Your task to perform on an android device: toggle translation in the chrome app Image 0: 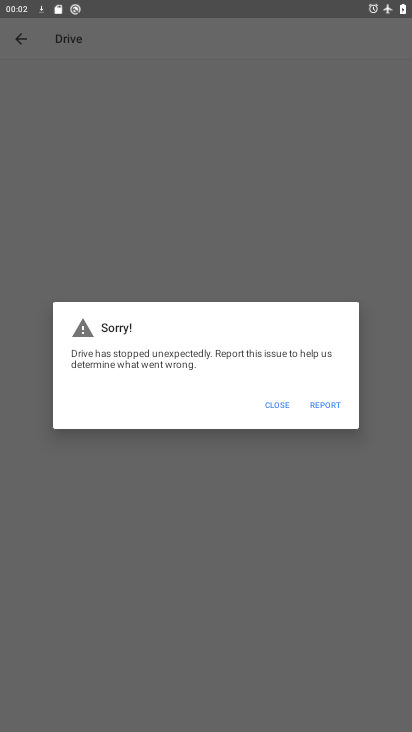
Step 0: press home button
Your task to perform on an android device: toggle translation in the chrome app Image 1: 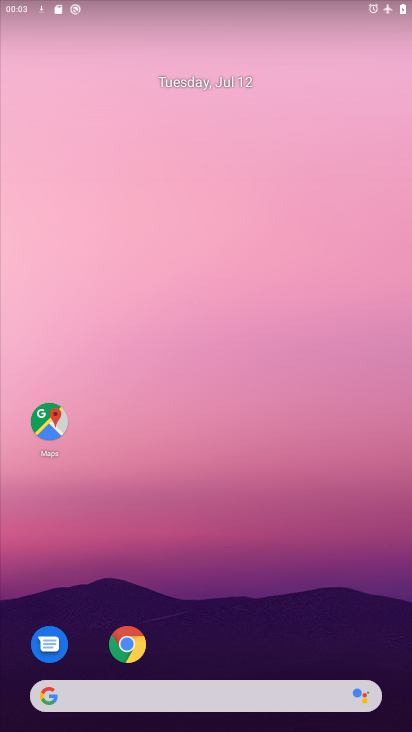
Step 1: drag from (263, 658) to (286, 272)
Your task to perform on an android device: toggle translation in the chrome app Image 2: 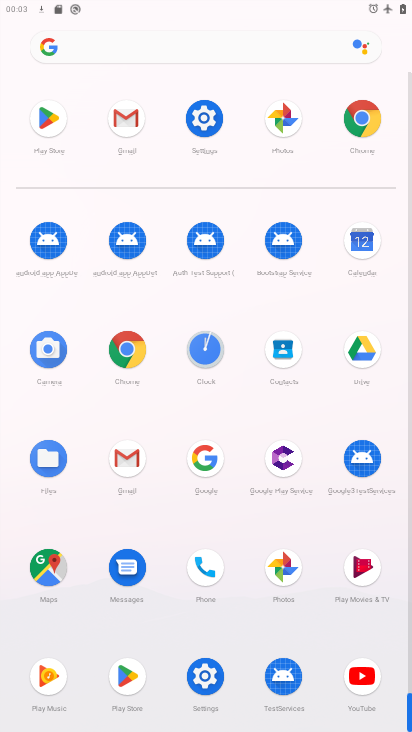
Step 2: click (129, 347)
Your task to perform on an android device: toggle translation in the chrome app Image 3: 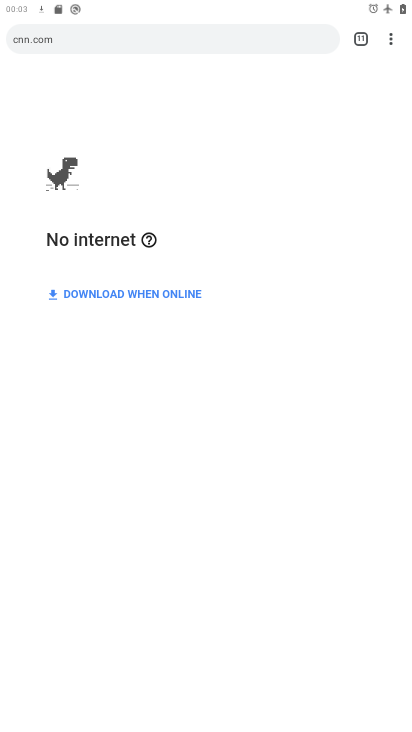
Step 3: click (386, 38)
Your task to perform on an android device: toggle translation in the chrome app Image 4: 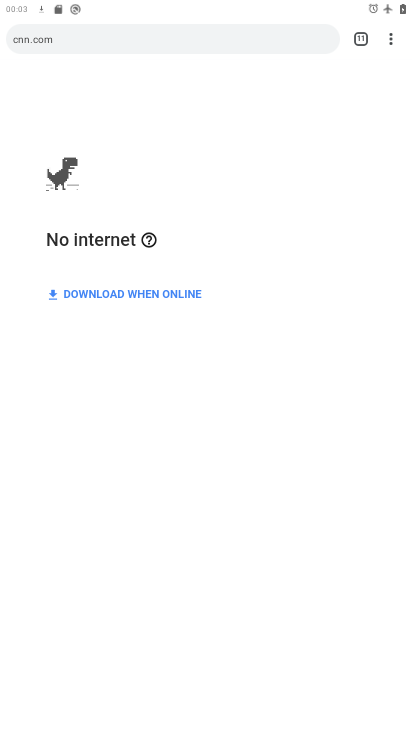
Step 4: click (402, 29)
Your task to perform on an android device: toggle translation in the chrome app Image 5: 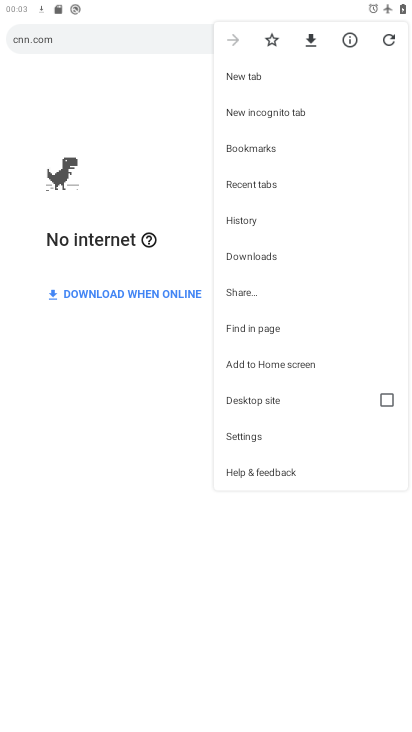
Step 5: click (274, 421)
Your task to perform on an android device: toggle translation in the chrome app Image 6: 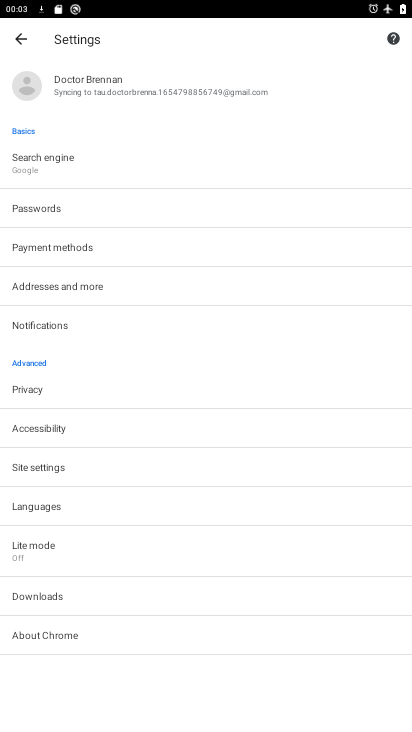
Step 6: click (67, 509)
Your task to perform on an android device: toggle translation in the chrome app Image 7: 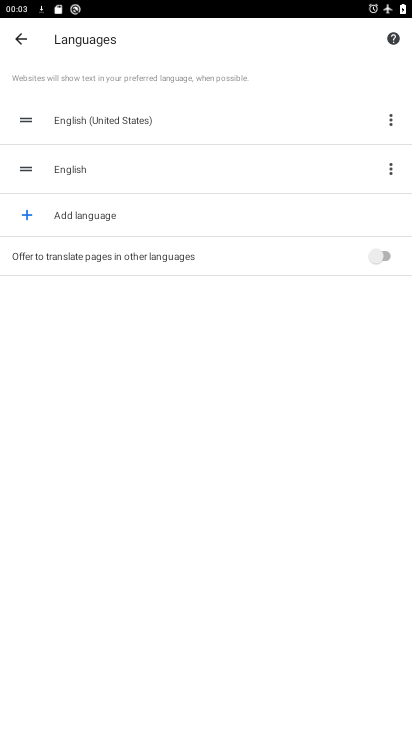
Step 7: click (370, 254)
Your task to perform on an android device: toggle translation in the chrome app Image 8: 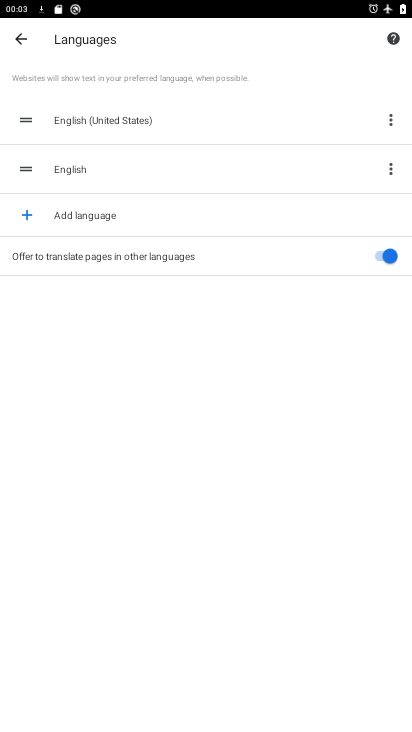
Step 8: task complete